Your task to perform on an android device: Open display settings Image 0: 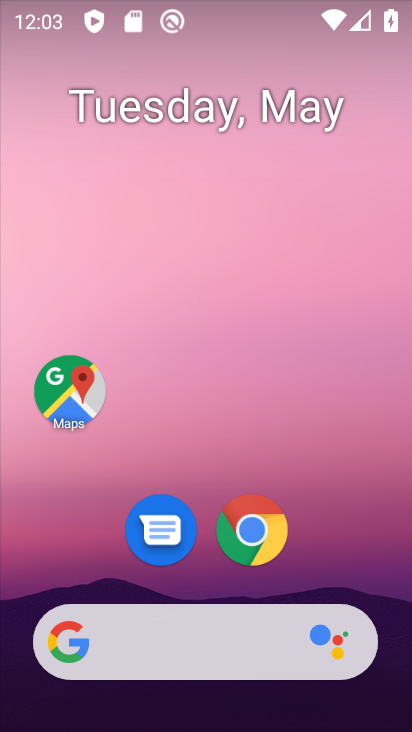
Step 0: drag from (379, 535) to (251, 11)
Your task to perform on an android device: Open display settings Image 1: 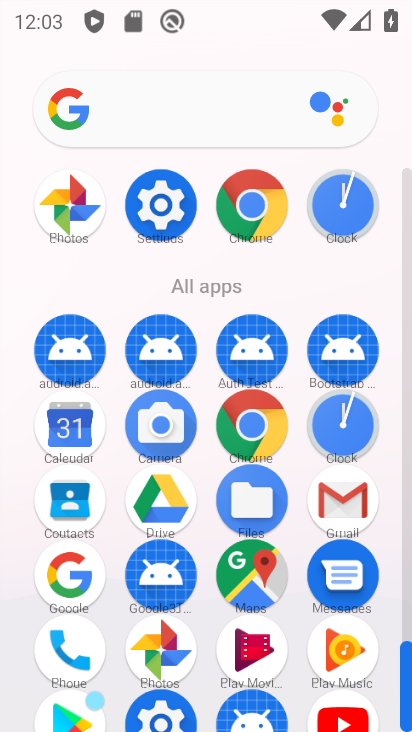
Step 1: drag from (1, 542) to (0, 163)
Your task to perform on an android device: Open display settings Image 2: 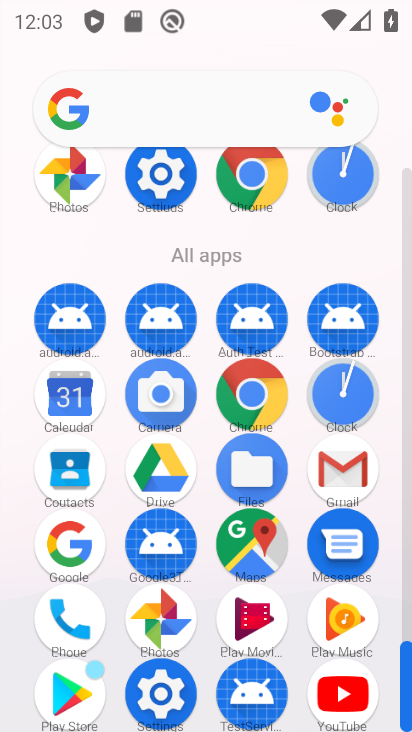
Step 2: click (161, 692)
Your task to perform on an android device: Open display settings Image 3: 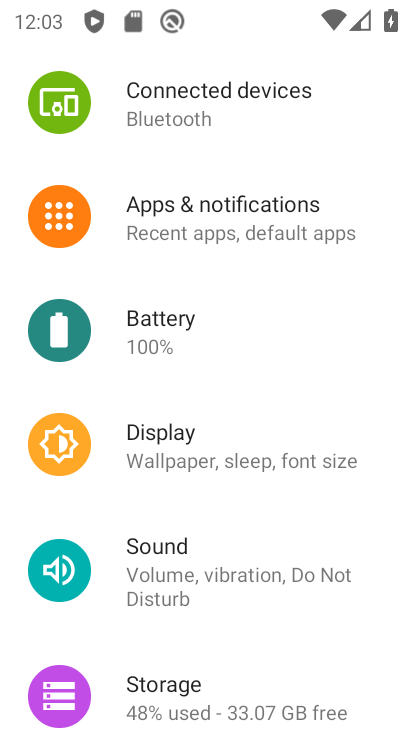
Step 3: drag from (253, 587) to (232, 150)
Your task to perform on an android device: Open display settings Image 4: 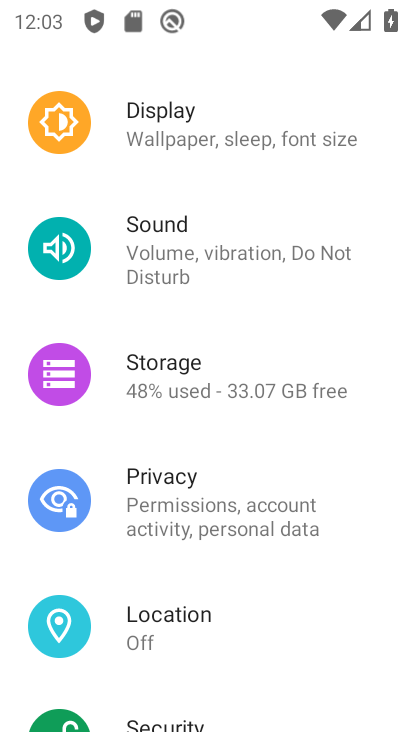
Step 4: drag from (259, 660) to (258, 110)
Your task to perform on an android device: Open display settings Image 5: 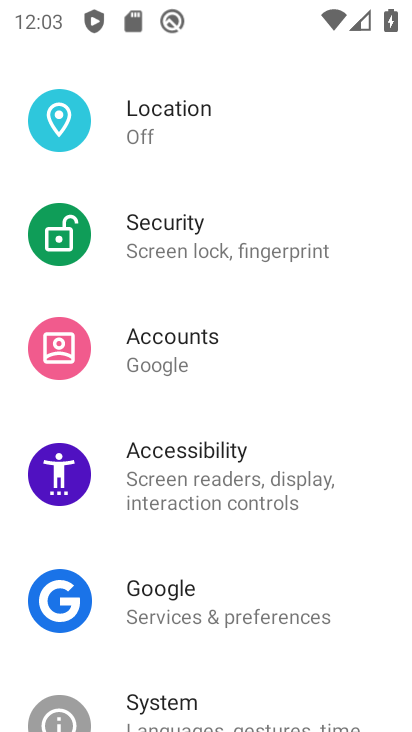
Step 5: drag from (286, 601) to (275, 141)
Your task to perform on an android device: Open display settings Image 6: 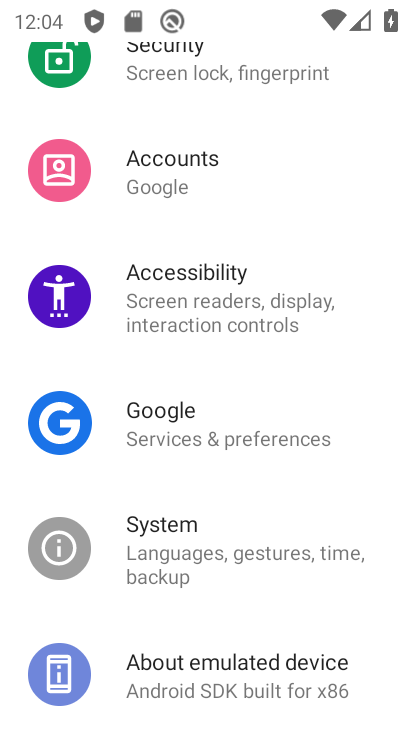
Step 6: drag from (276, 146) to (286, 513)
Your task to perform on an android device: Open display settings Image 7: 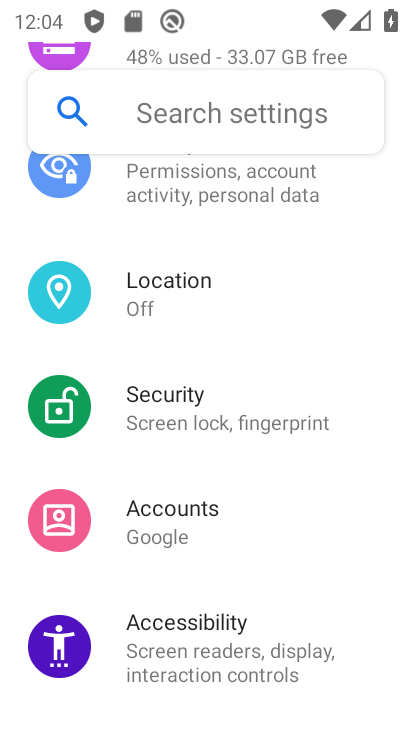
Step 7: drag from (286, 244) to (284, 601)
Your task to perform on an android device: Open display settings Image 8: 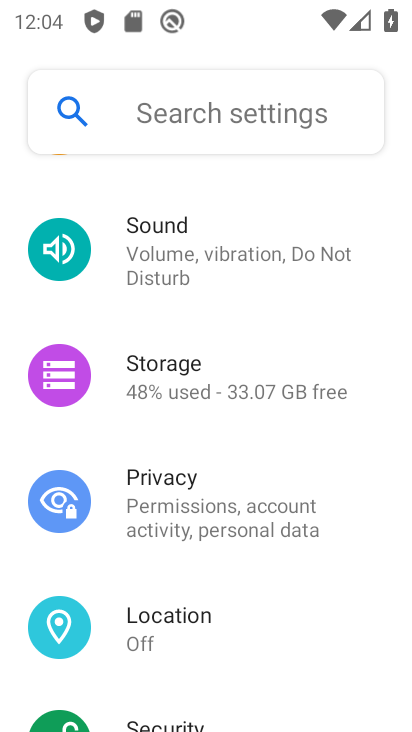
Step 8: drag from (255, 265) to (274, 638)
Your task to perform on an android device: Open display settings Image 9: 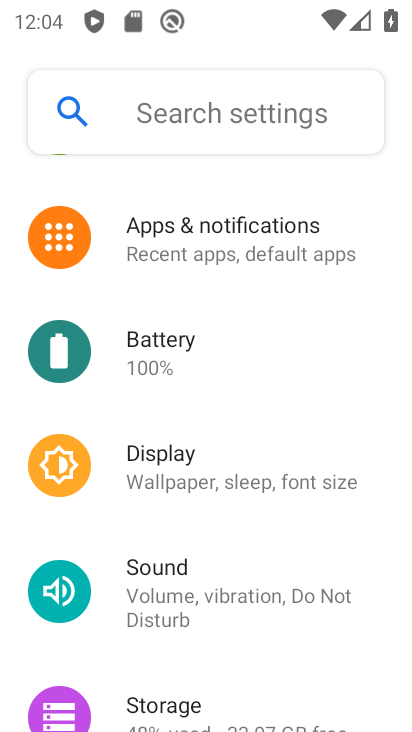
Step 9: click (217, 473)
Your task to perform on an android device: Open display settings Image 10: 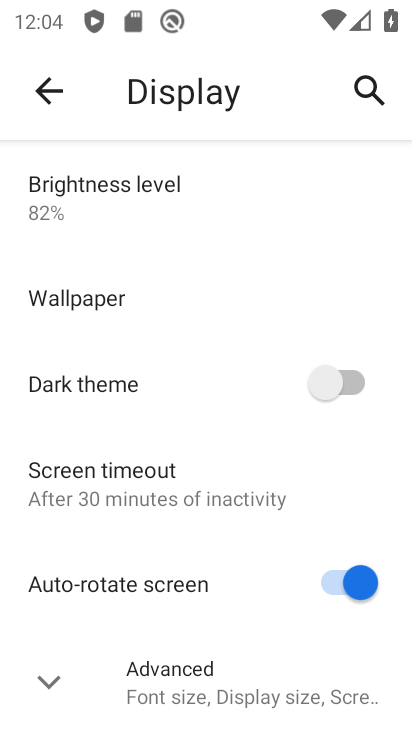
Step 10: drag from (194, 591) to (210, 177)
Your task to perform on an android device: Open display settings Image 11: 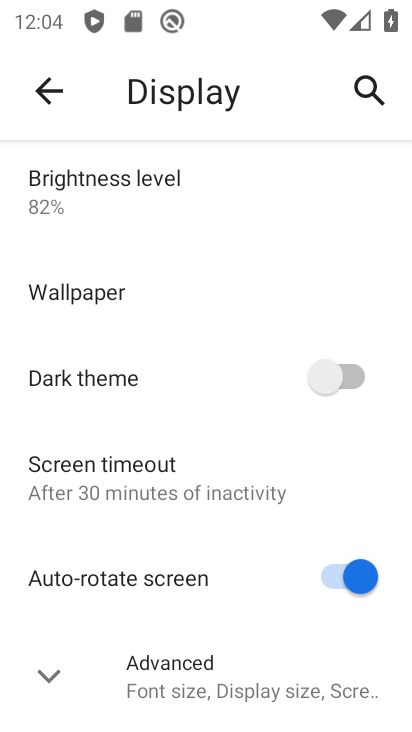
Step 11: click (42, 669)
Your task to perform on an android device: Open display settings Image 12: 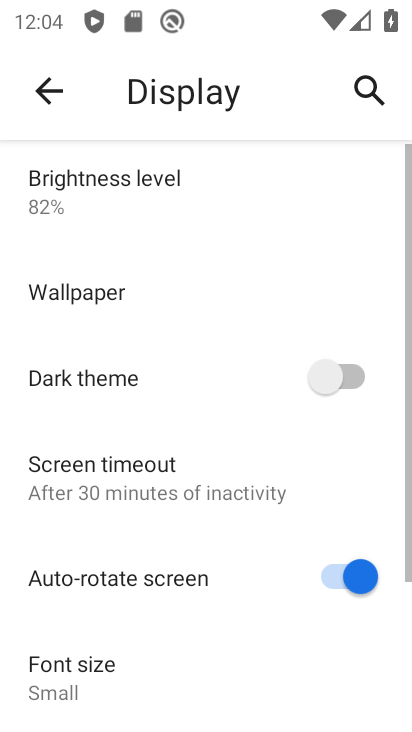
Step 12: task complete